Your task to perform on an android device: How much does a 3 bedroom apartment rent for in New York? Image 0: 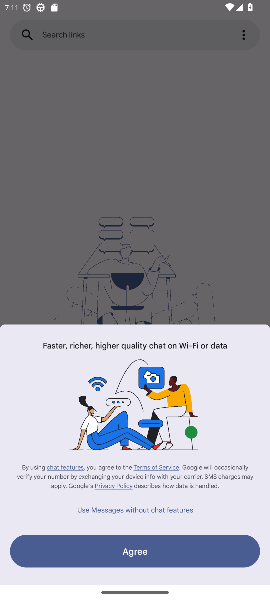
Step 0: press home button
Your task to perform on an android device: How much does a 3 bedroom apartment rent for in New York? Image 1: 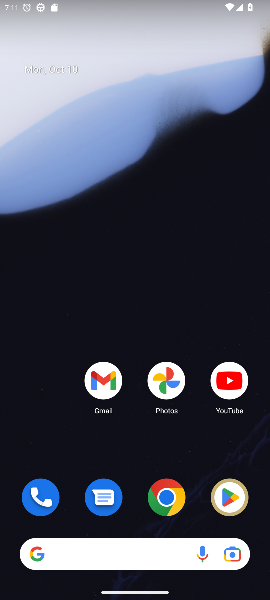
Step 1: drag from (131, 454) to (176, 163)
Your task to perform on an android device: How much does a 3 bedroom apartment rent for in New York? Image 2: 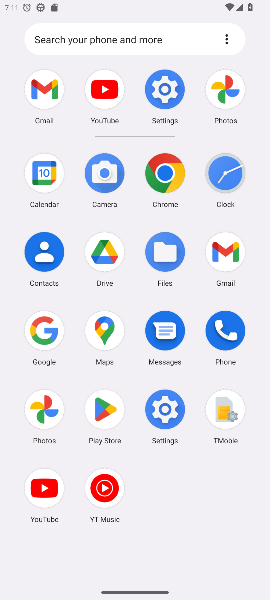
Step 2: click (38, 86)
Your task to perform on an android device: How much does a 3 bedroom apartment rent for in New York? Image 3: 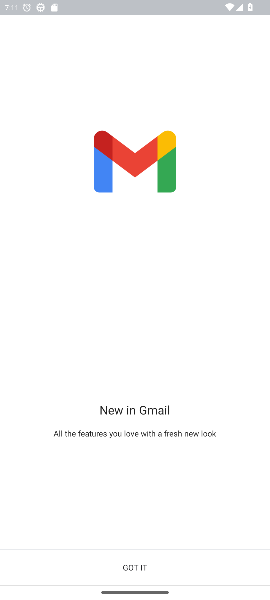
Step 3: press home button
Your task to perform on an android device: How much does a 3 bedroom apartment rent for in New York? Image 4: 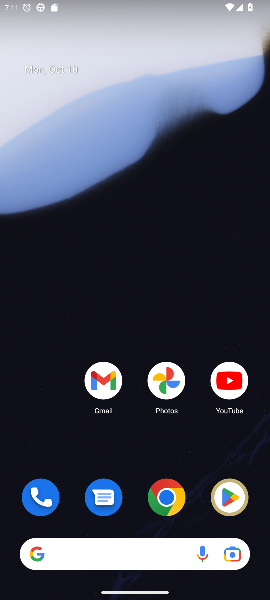
Step 4: drag from (115, 459) to (168, 254)
Your task to perform on an android device: How much does a 3 bedroom apartment rent for in New York? Image 5: 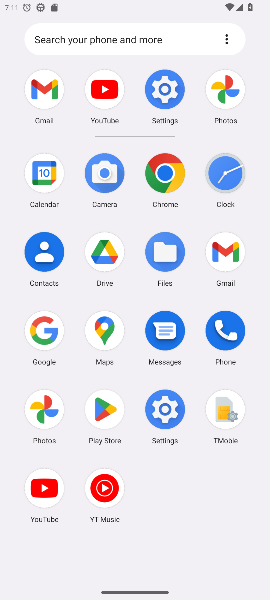
Step 5: click (41, 330)
Your task to perform on an android device: How much does a 3 bedroom apartment rent for in New York? Image 6: 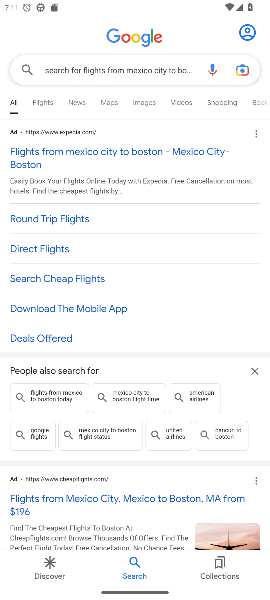
Step 6: click (151, 65)
Your task to perform on an android device: How much does a 3 bedroom apartment rent for in New York? Image 7: 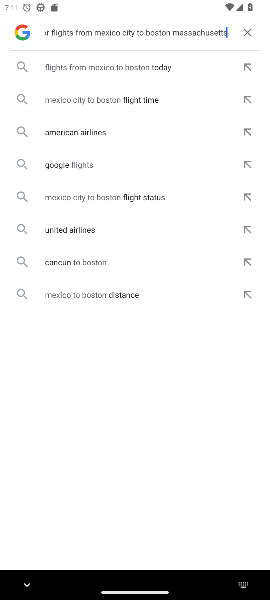
Step 7: click (252, 32)
Your task to perform on an android device: How much does a 3 bedroom apartment rent for in New York? Image 8: 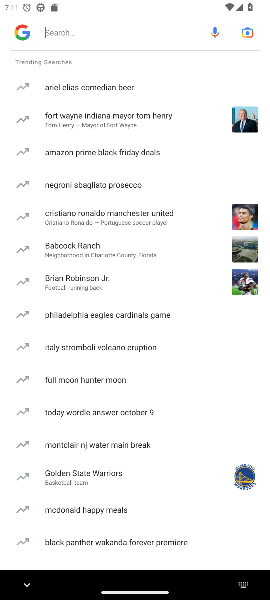
Step 8: click (79, 22)
Your task to perform on an android device: How much does a 3 bedroom apartment rent for in New York? Image 9: 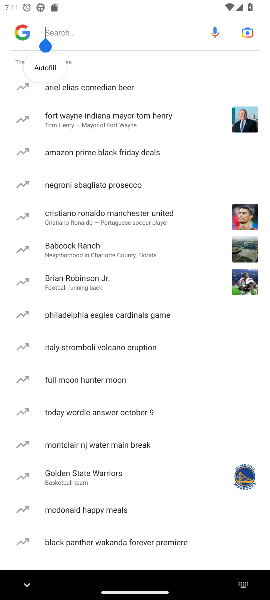
Step 9: type "How much does a 3 bedroom apartment rent for in New York? "
Your task to perform on an android device: How much does a 3 bedroom apartment rent for in New York? Image 10: 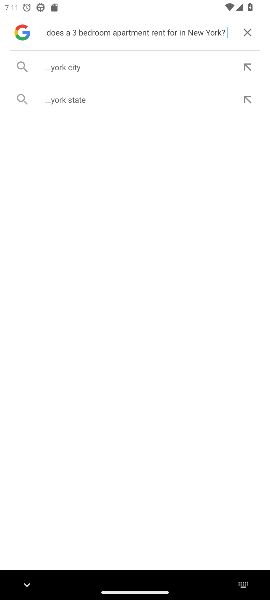
Step 10: click (84, 72)
Your task to perform on an android device: How much does a 3 bedroom apartment rent for in New York? Image 11: 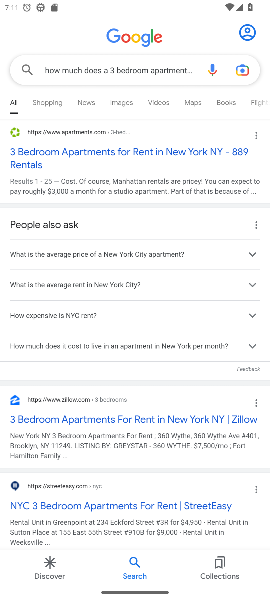
Step 11: click (80, 147)
Your task to perform on an android device: How much does a 3 bedroom apartment rent for in New York? Image 12: 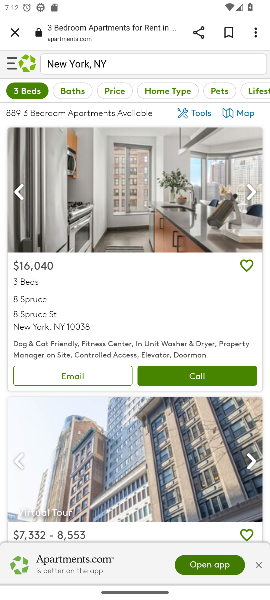
Step 12: task complete